Your task to perform on an android device: Go to Maps Image 0: 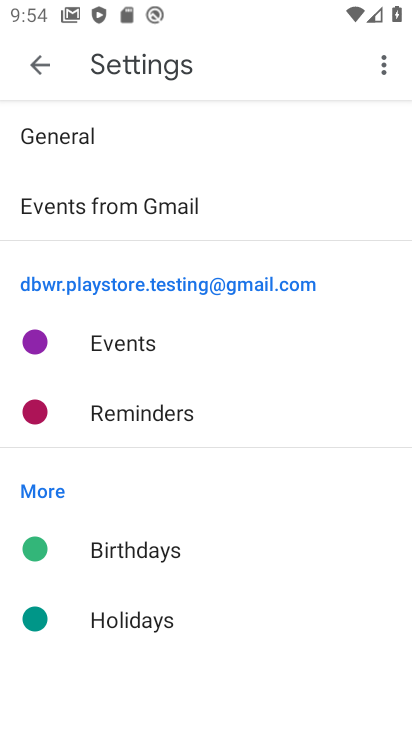
Step 0: press home button
Your task to perform on an android device: Go to Maps Image 1: 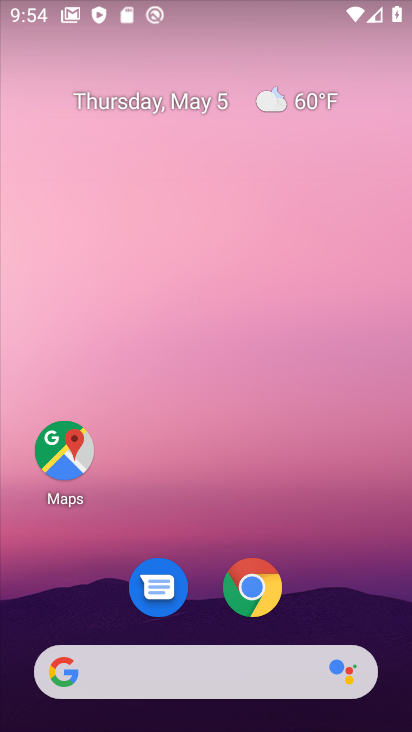
Step 1: click (75, 478)
Your task to perform on an android device: Go to Maps Image 2: 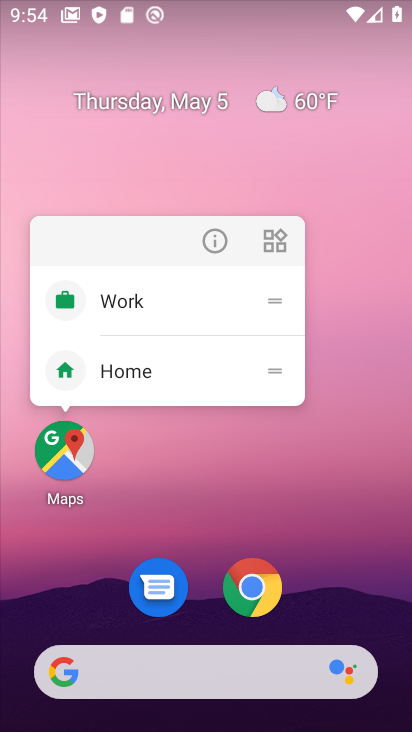
Step 2: click (63, 456)
Your task to perform on an android device: Go to Maps Image 3: 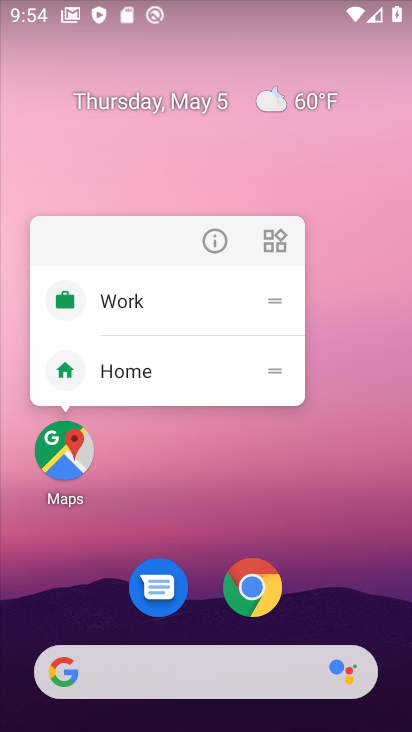
Step 3: click (65, 459)
Your task to perform on an android device: Go to Maps Image 4: 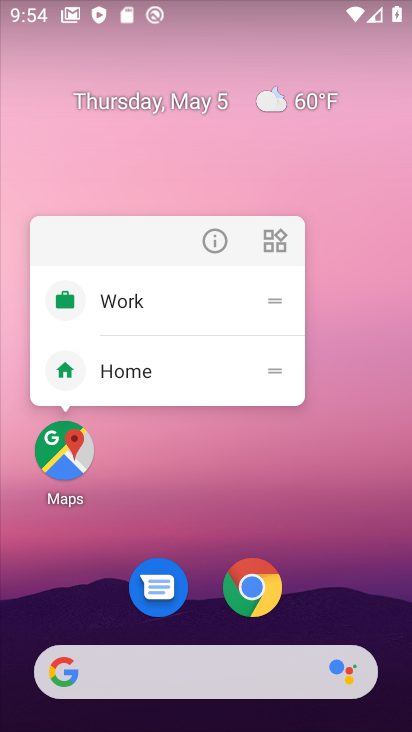
Step 4: click (74, 451)
Your task to perform on an android device: Go to Maps Image 5: 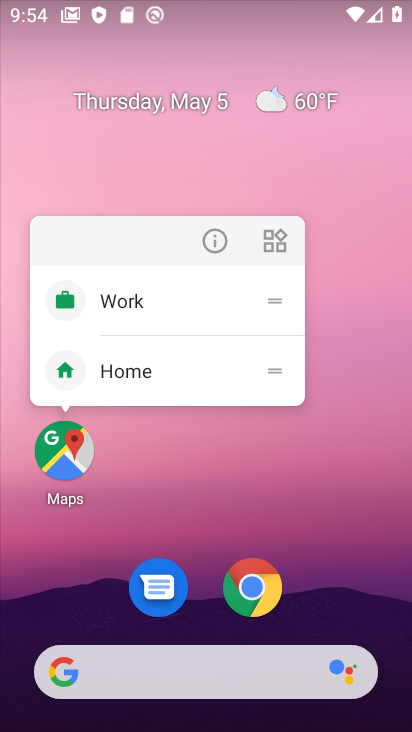
Step 5: click (55, 453)
Your task to perform on an android device: Go to Maps Image 6: 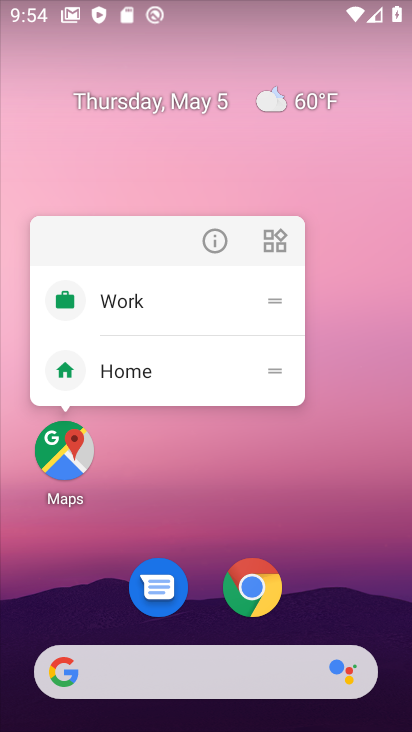
Step 6: click (54, 469)
Your task to perform on an android device: Go to Maps Image 7: 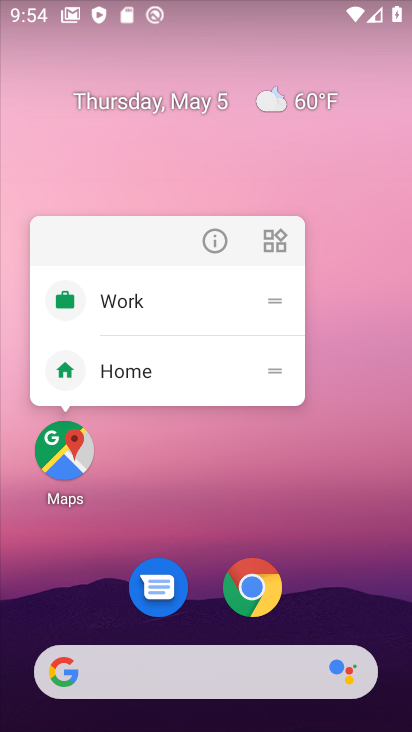
Step 7: click (58, 478)
Your task to perform on an android device: Go to Maps Image 8: 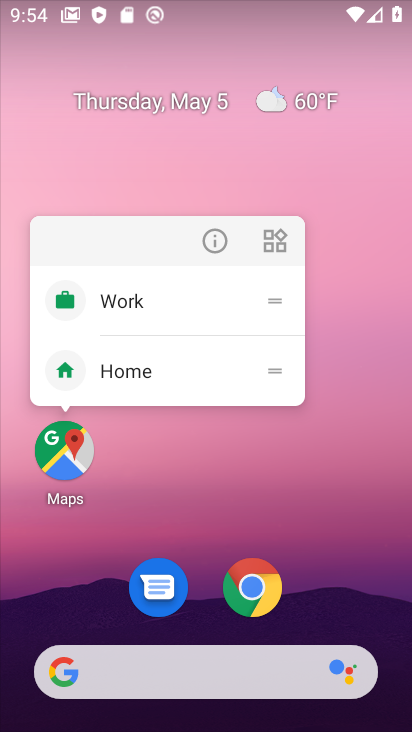
Step 8: click (75, 468)
Your task to perform on an android device: Go to Maps Image 9: 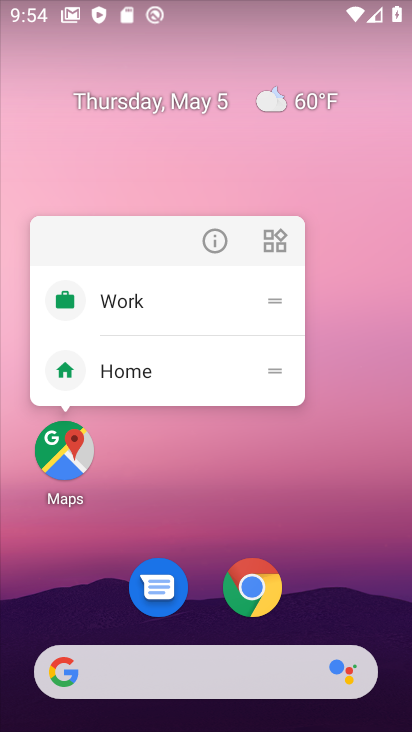
Step 9: click (68, 455)
Your task to perform on an android device: Go to Maps Image 10: 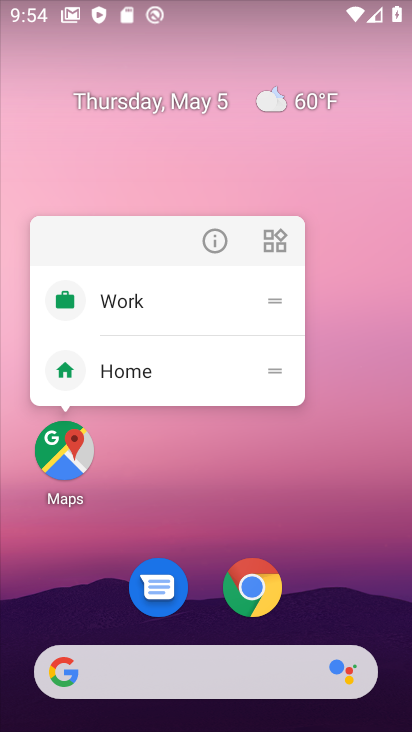
Step 10: click (55, 445)
Your task to perform on an android device: Go to Maps Image 11: 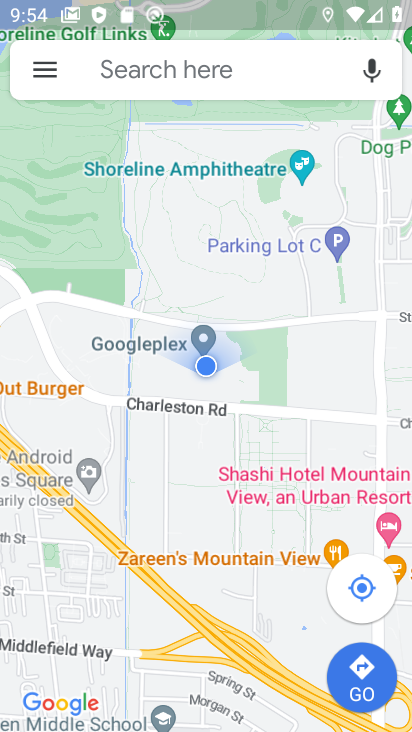
Step 11: task complete